Your task to perform on an android device: turn off airplane mode Image 0: 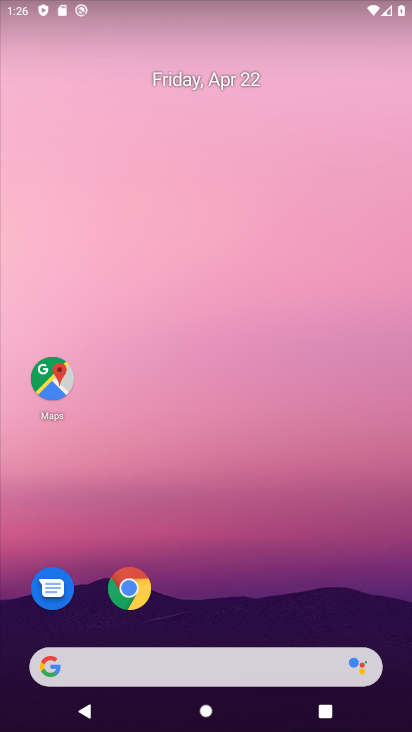
Step 0: drag from (258, 412) to (259, 189)
Your task to perform on an android device: turn off airplane mode Image 1: 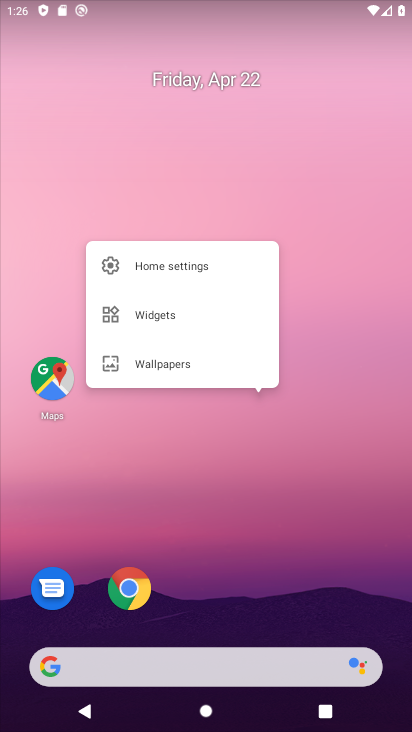
Step 1: click (334, 486)
Your task to perform on an android device: turn off airplane mode Image 2: 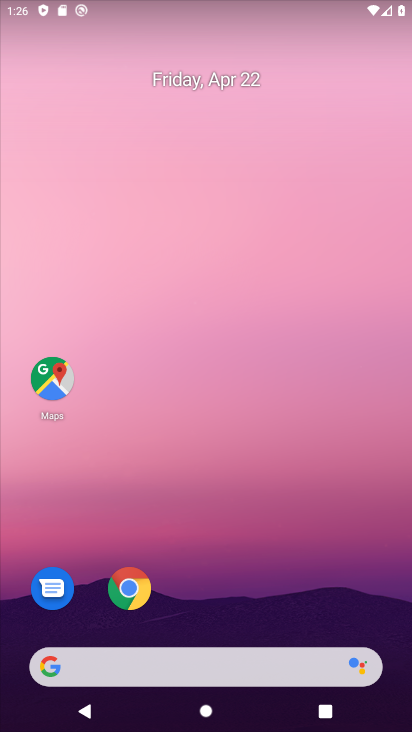
Step 2: drag from (260, 556) to (251, 62)
Your task to perform on an android device: turn off airplane mode Image 3: 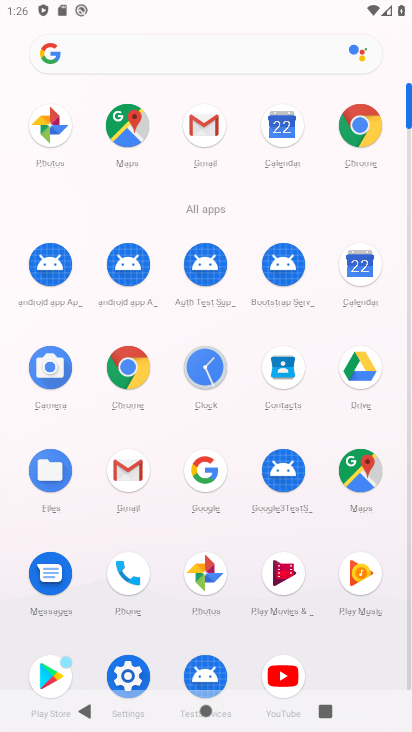
Step 3: drag from (319, 404) to (327, 336)
Your task to perform on an android device: turn off airplane mode Image 4: 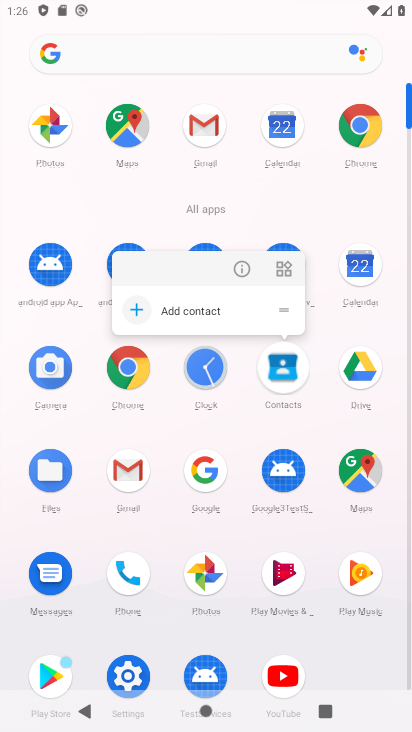
Step 4: drag from (344, 566) to (350, 356)
Your task to perform on an android device: turn off airplane mode Image 5: 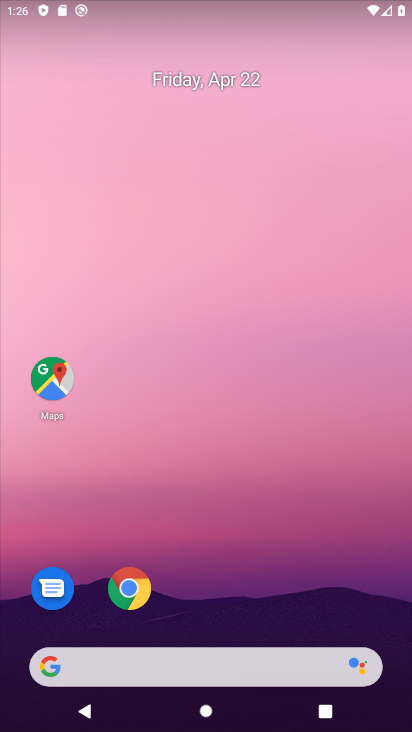
Step 5: drag from (266, 628) to (292, 0)
Your task to perform on an android device: turn off airplane mode Image 6: 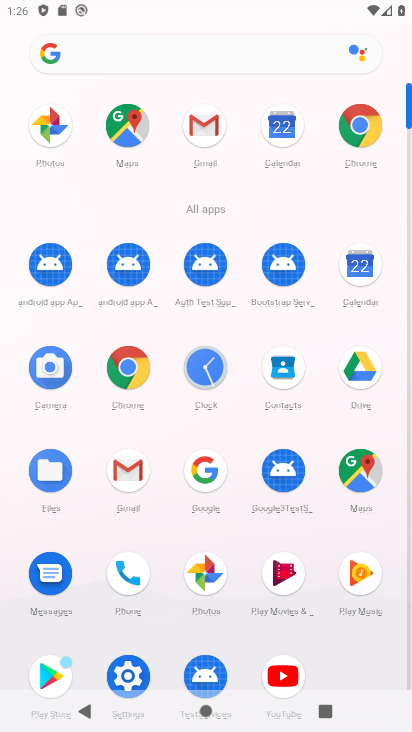
Step 6: drag from (349, 632) to (347, 310)
Your task to perform on an android device: turn off airplane mode Image 7: 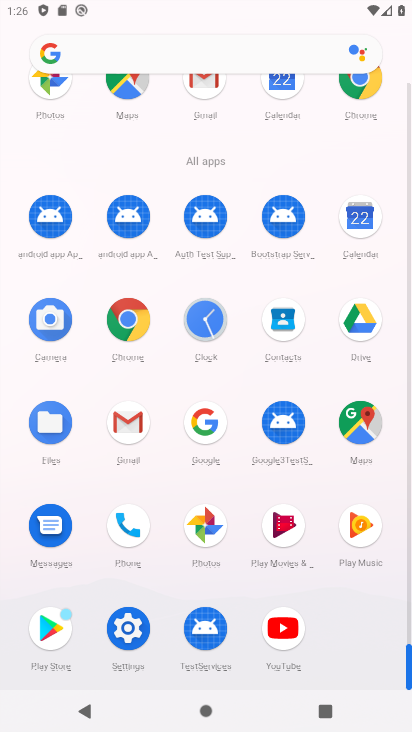
Step 7: click (140, 644)
Your task to perform on an android device: turn off airplane mode Image 8: 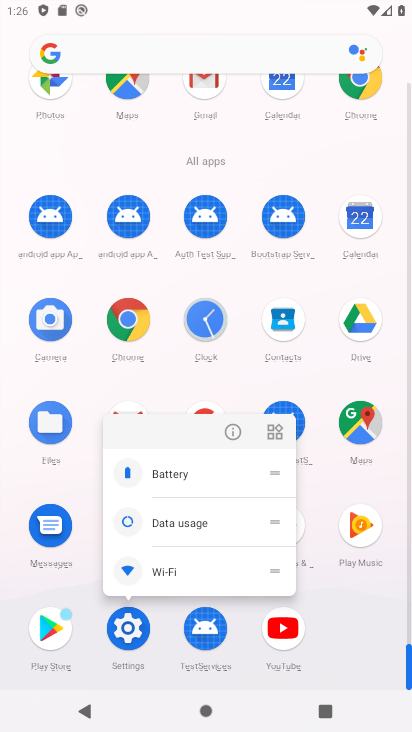
Step 8: click (142, 641)
Your task to perform on an android device: turn off airplane mode Image 9: 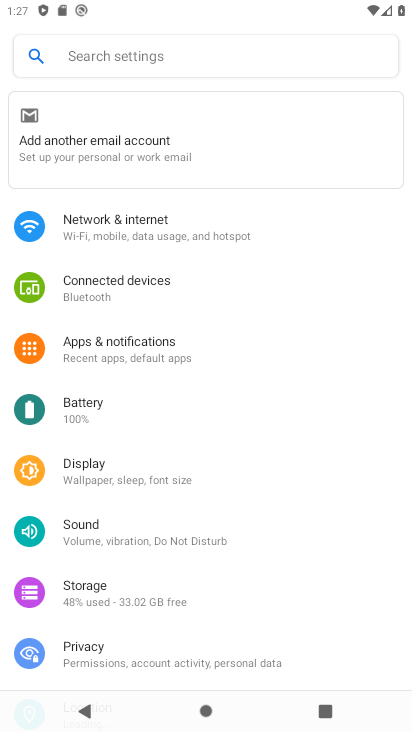
Step 9: click (177, 233)
Your task to perform on an android device: turn off airplane mode Image 10: 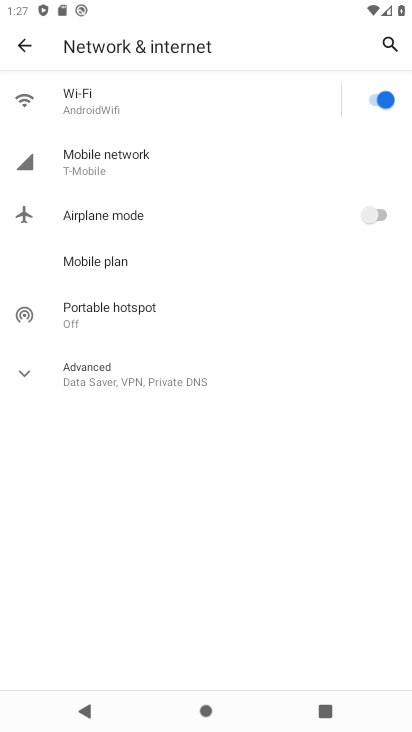
Step 10: task complete